Your task to perform on an android device: change keyboard looks Image 0: 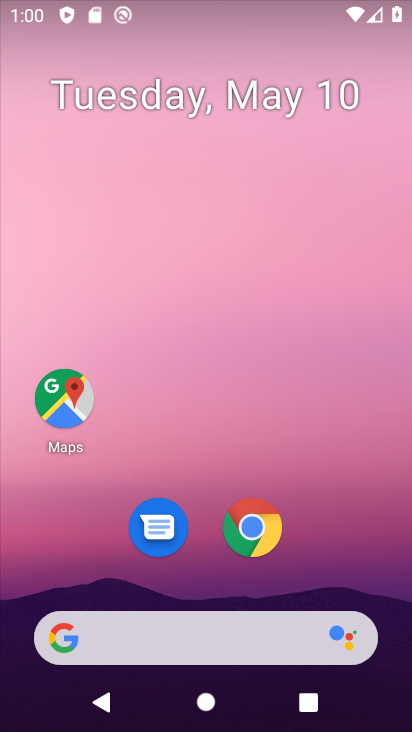
Step 0: drag from (162, 565) to (223, 203)
Your task to perform on an android device: change keyboard looks Image 1: 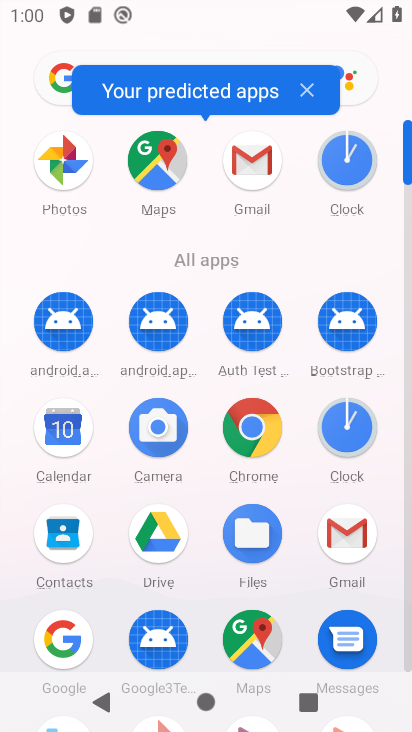
Step 1: drag from (206, 505) to (228, 217)
Your task to perform on an android device: change keyboard looks Image 2: 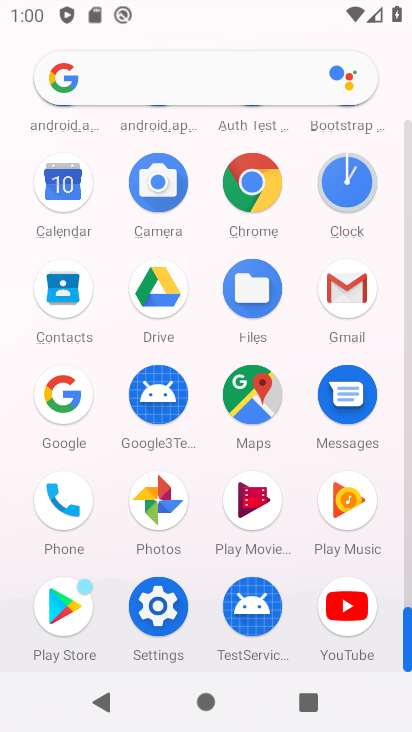
Step 2: click (150, 608)
Your task to perform on an android device: change keyboard looks Image 3: 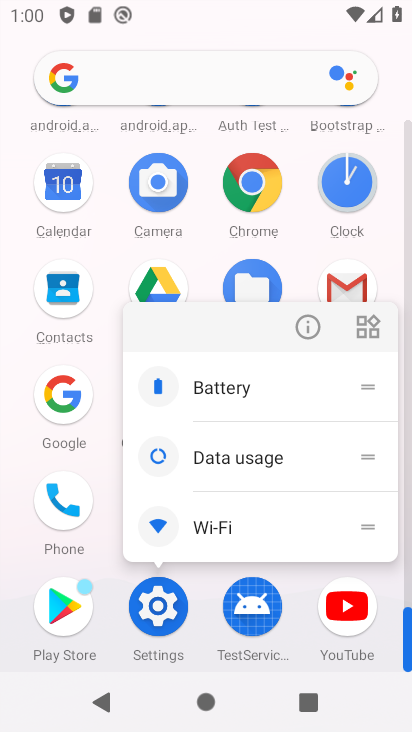
Step 3: click (155, 601)
Your task to perform on an android device: change keyboard looks Image 4: 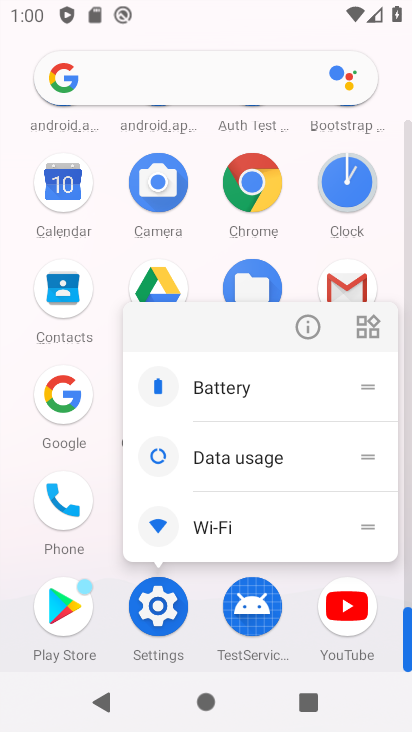
Step 4: click (155, 599)
Your task to perform on an android device: change keyboard looks Image 5: 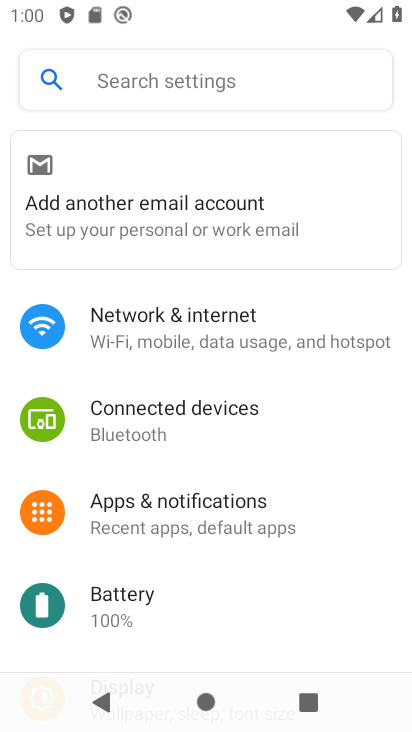
Step 5: drag from (192, 554) to (222, 233)
Your task to perform on an android device: change keyboard looks Image 6: 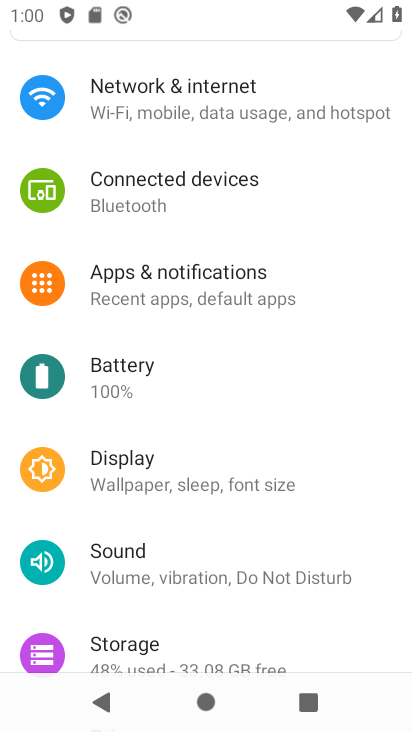
Step 6: drag from (197, 616) to (242, 306)
Your task to perform on an android device: change keyboard looks Image 7: 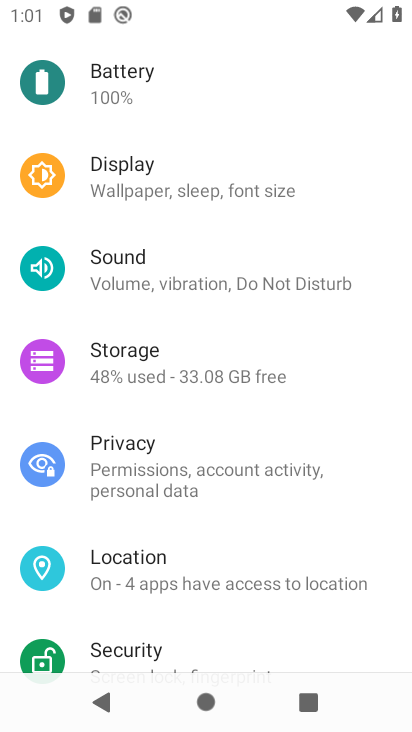
Step 7: drag from (195, 620) to (229, 285)
Your task to perform on an android device: change keyboard looks Image 8: 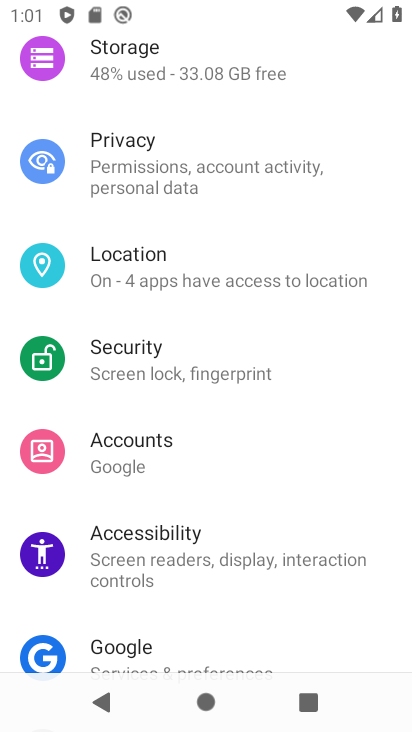
Step 8: drag from (159, 583) to (227, 276)
Your task to perform on an android device: change keyboard looks Image 9: 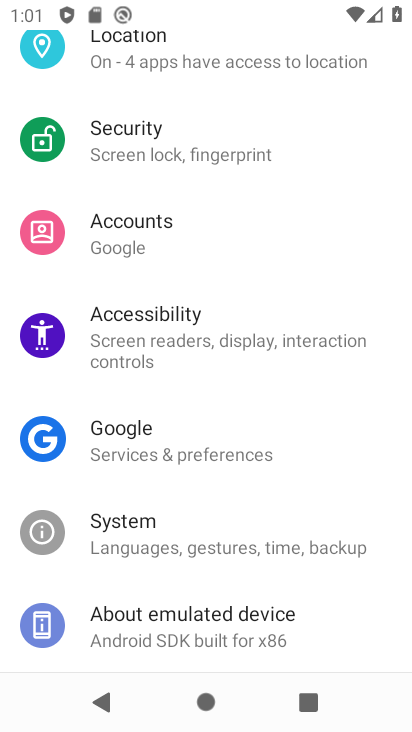
Step 9: click (163, 550)
Your task to perform on an android device: change keyboard looks Image 10: 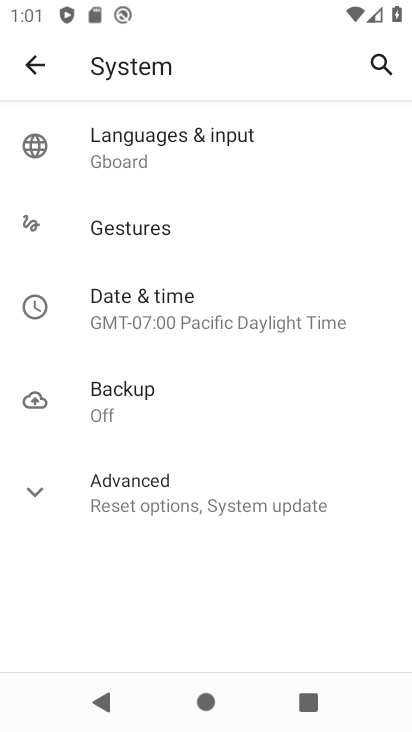
Step 10: click (197, 154)
Your task to perform on an android device: change keyboard looks Image 11: 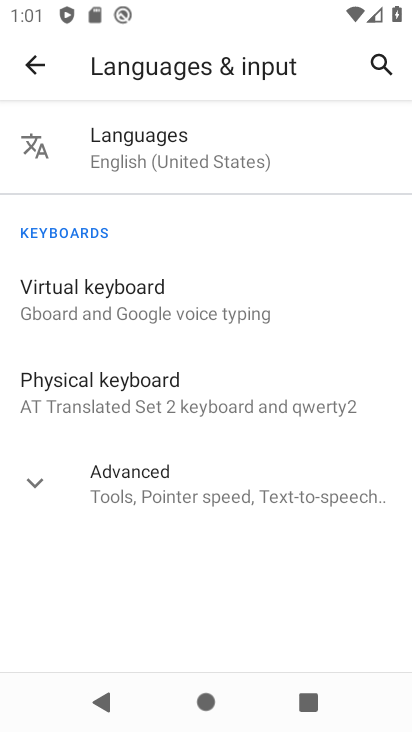
Step 11: click (106, 311)
Your task to perform on an android device: change keyboard looks Image 12: 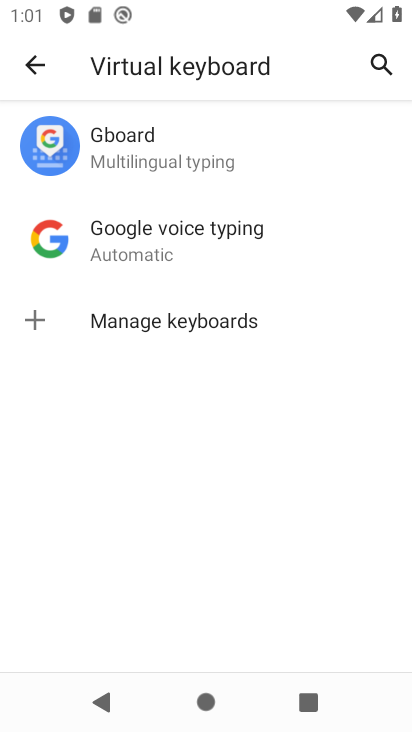
Step 12: click (118, 318)
Your task to perform on an android device: change keyboard looks Image 13: 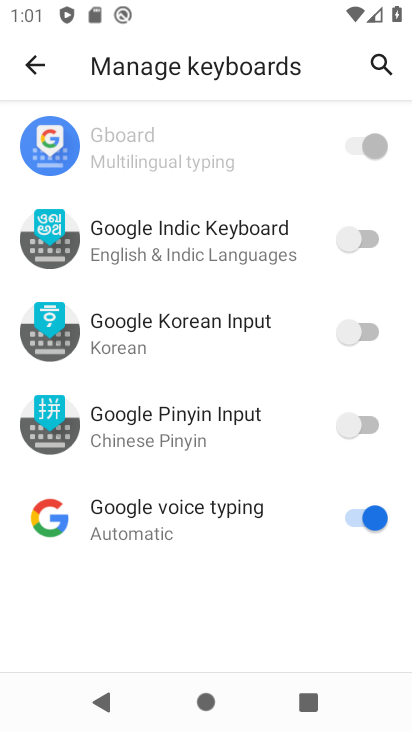
Step 13: click (33, 67)
Your task to perform on an android device: change keyboard looks Image 14: 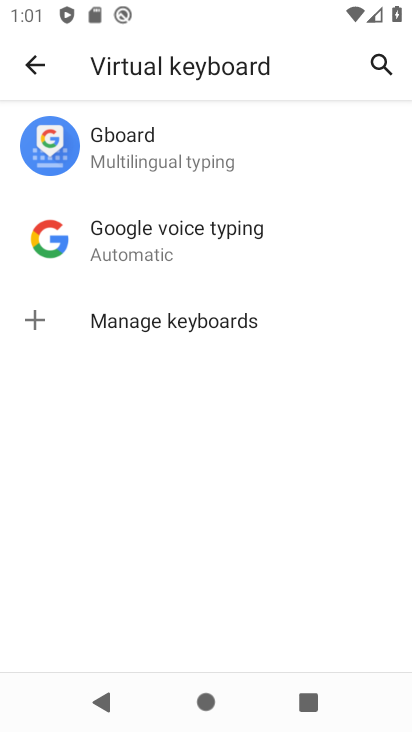
Step 14: click (33, 68)
Your task to perform on an android device: change keyboard looks Image 15: 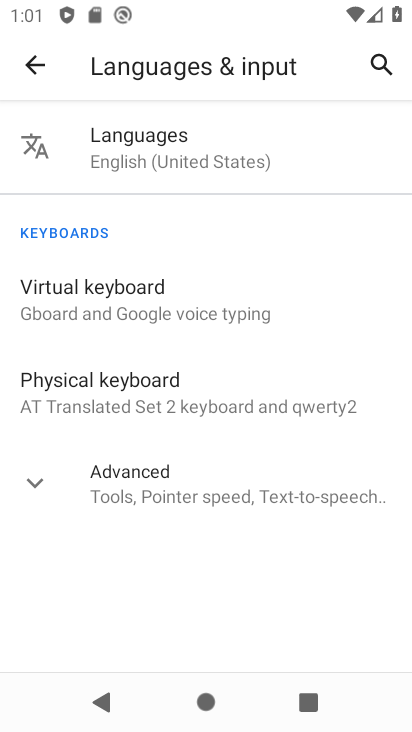
Step 15: click (131, 401)
Your task to perform on an android device: change keyboard looks Image 16: 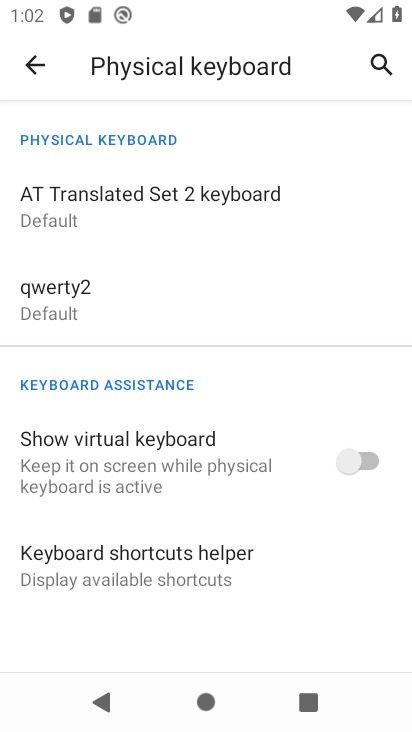
Step 16: click (65, 302)
Your task to perform on an android device: change keyboard looks Image 17: 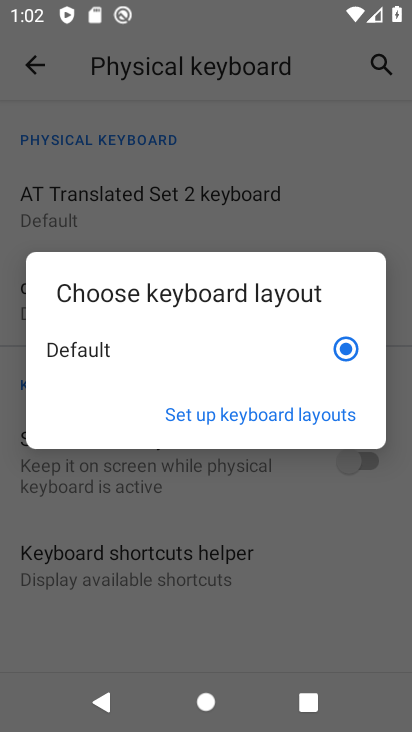
Step 17: click (201, 226)
Your task to perform on an android device: change keyboard looks Image 18: 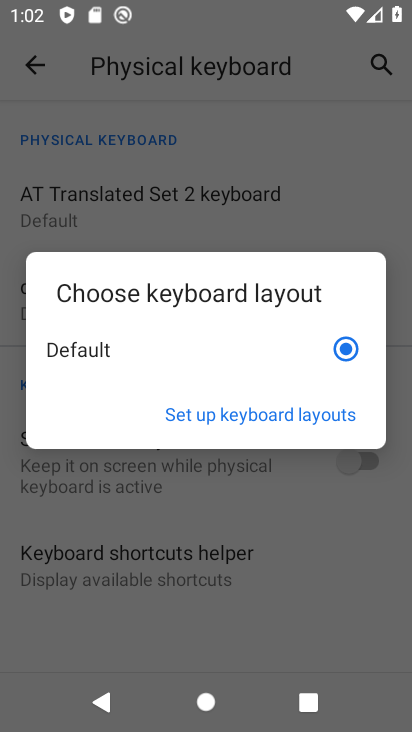
Step 18: task complete